Your task to perform on an android device: Go to wifi settings Image 0: 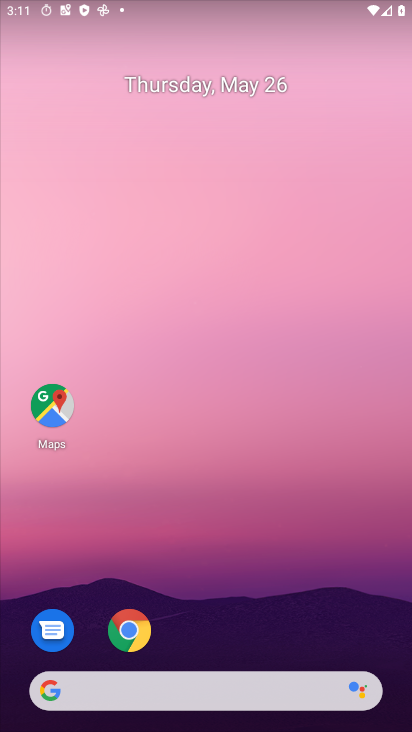
Step 0: drag from (281, 561) to (269, 266)
Your task to perform on an android device: Go to wifi settings Image 1: 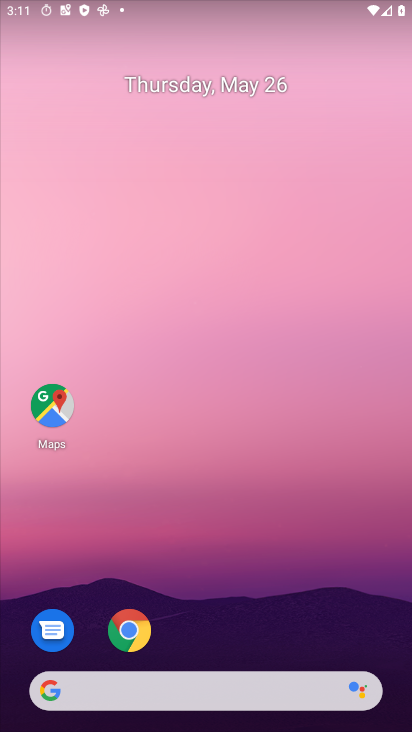
Step 1: drag from (201, 608) to (218, 72)
Your task to perform on an android device: Go to wifi settings Image 2: 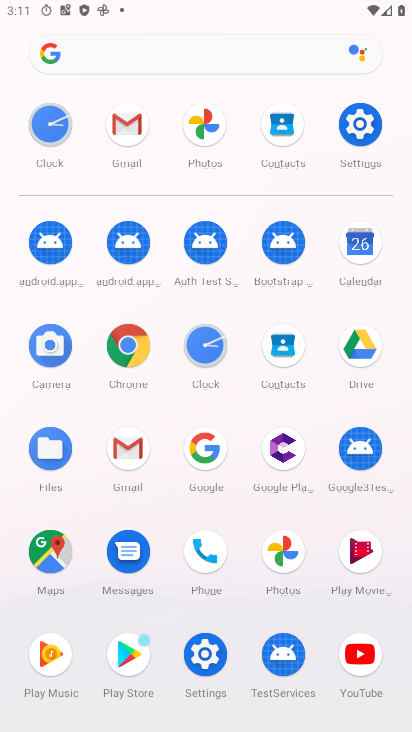
Step 2: click (348, 128)
Your task to perform on an android device: Go to wifi settings Image 3: 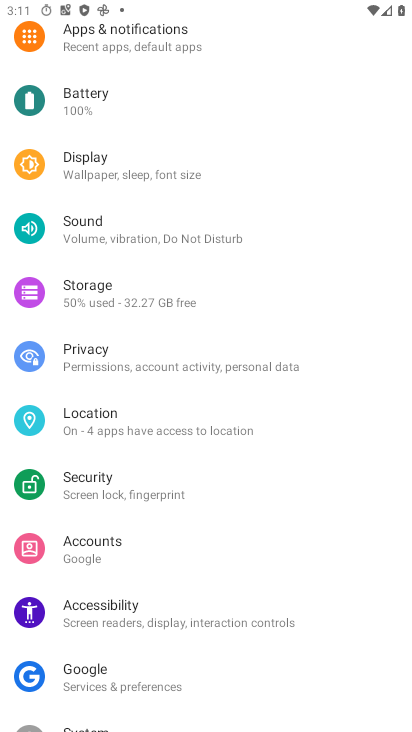
Step 3: drag from (289, 111) to (256, 618)
Your task to perform on an android device: Go to wifi settings Image 4: 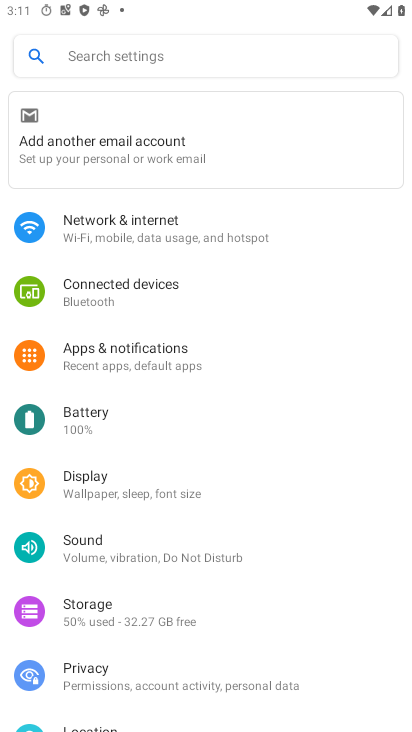
Step 4: click (174, 231)
Your task to perform on an android device: Go to wifi settings Image 5: 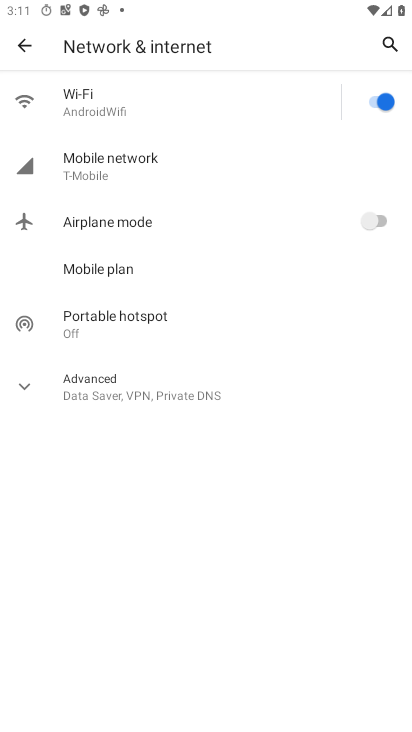
Step 5: click (172, 116)
Your task to perform on an android device: Go to wifi settings Image 6: 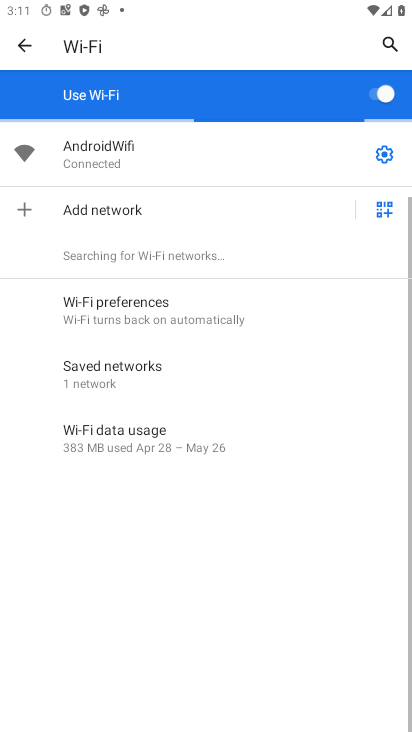
Step 6: task complete